Your task to perform on an android device: change the clock display to analog Image 0: 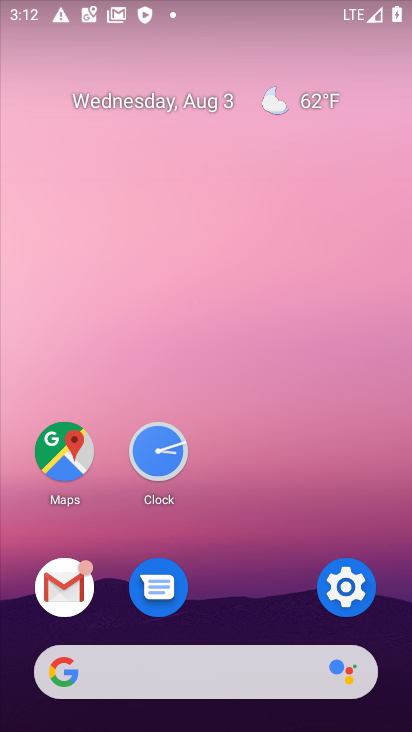
Step 0: click (156, 458)
Your task to perform on an android device: change the clock display to analog Image 1: 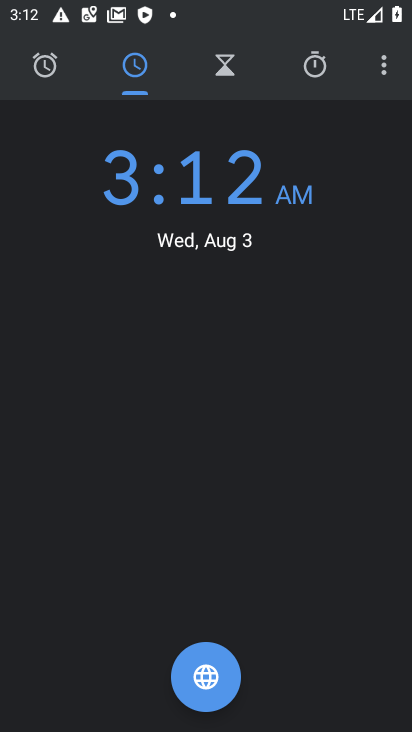
Step 1: click (387, 75)
Your task to perform on an android device: change the clock display to analog Image 2: 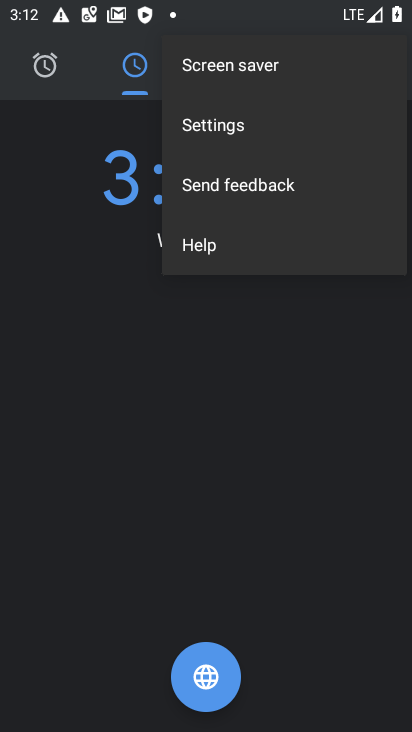
Step 2: click (234, 122)
Your task to perform on an android device: change the clock display to analog Image 3: 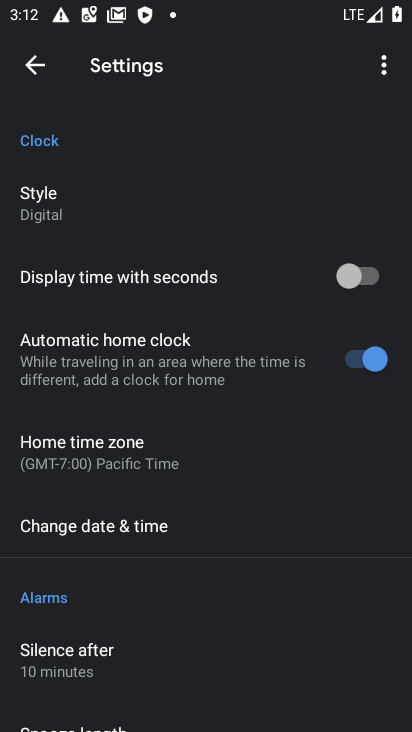
Step 3: click (58, 197)
Your task to perform on an android device: change the clock display to analog Image 4: 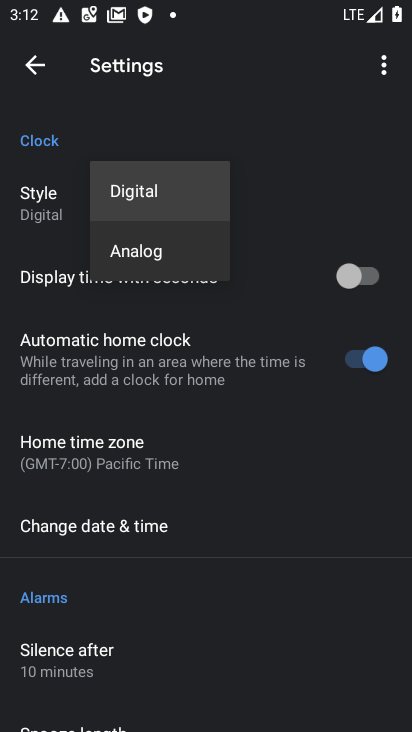
Step 4: click (168, 252)
Your task to perform on an android device: change the clock display to analog Image 5: 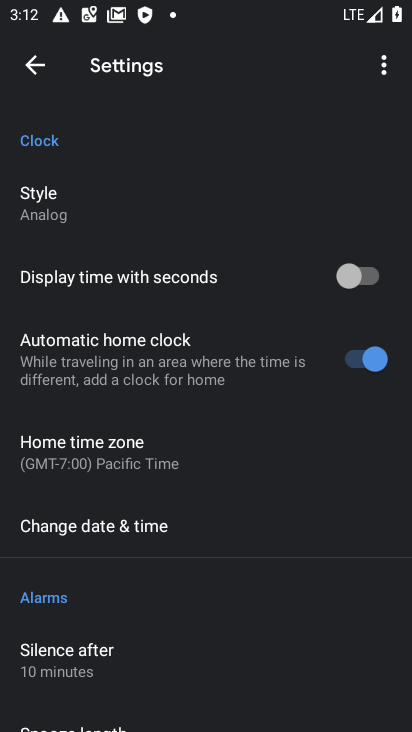
Step 5: task complete